Your task to perform on an android device: turn on the 12-hour format for clock Image 0: 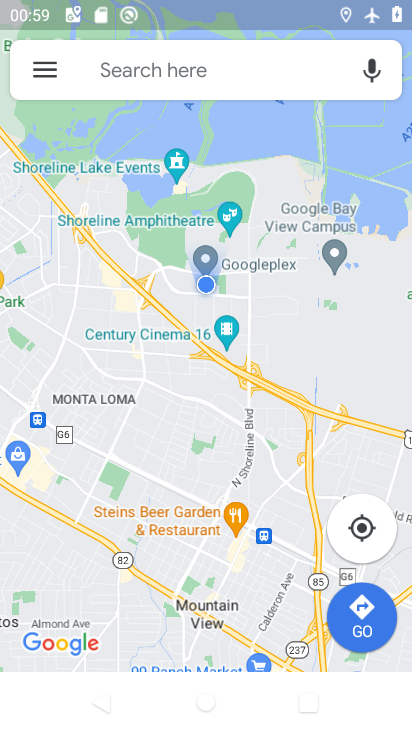
Step 0: press home button
Your task to perform on an android device: turn on the 12-hour format for clock Image 1: 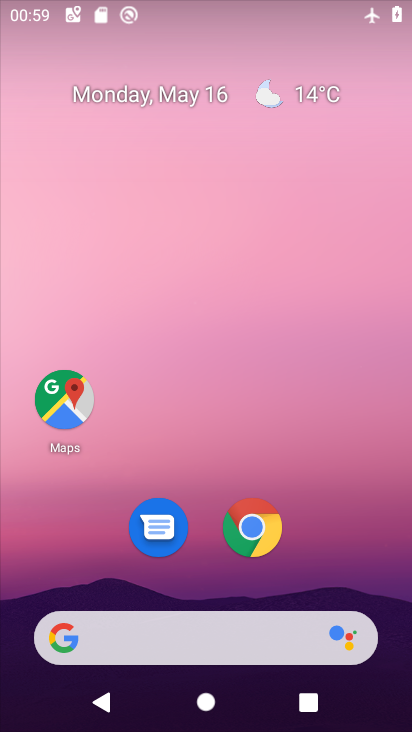
Step 1: drag from (266, 584) to (296, 9)
Your task to perform on an android device: turn on the 12-hour format for clock Image 2: 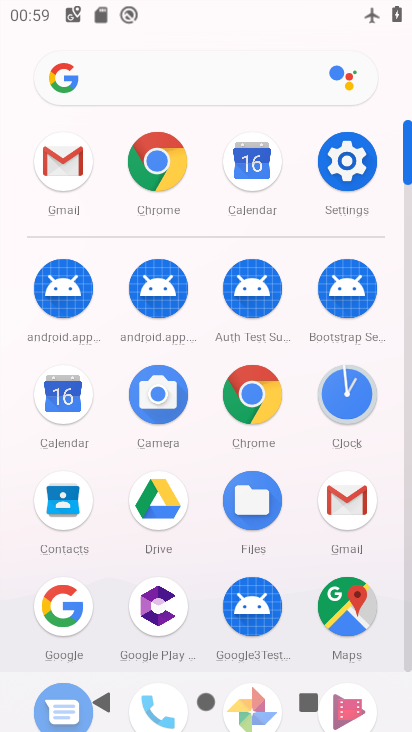
Step 2: drag from (210, 560) to (273, 168)
Your task to perform on an android device: turn on the 12-hour format for clock Image 3: 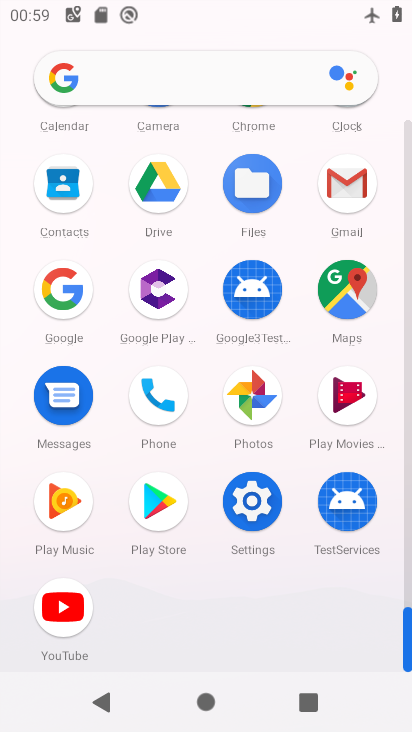
Step 3: click (249, 534)
Your task to perform on an android device: turn on the 12-hour format for clock Image 4: 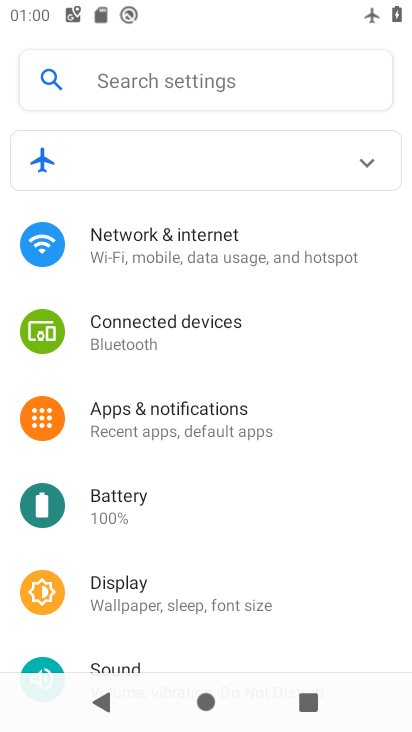
Step 4: drag from (201, 540) to (233, 198)
Your task to perform on an android device: turn on the 12-hour format for clock Image 5: 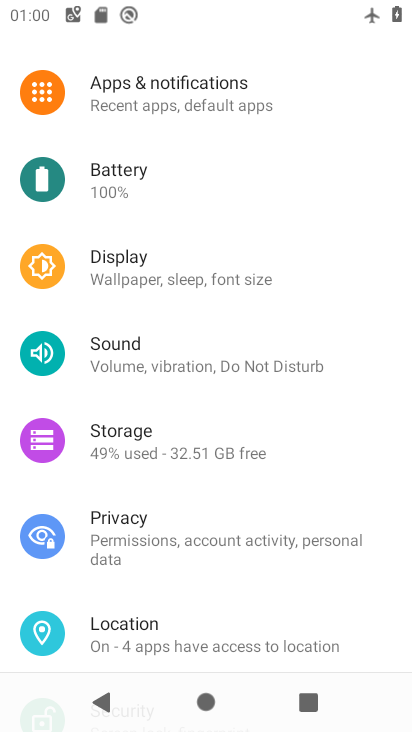
Step 5: drag from (180, 535) to (277, 100)
Your task to perform on an android device: turn on the 12-hour format for clock Image 6: 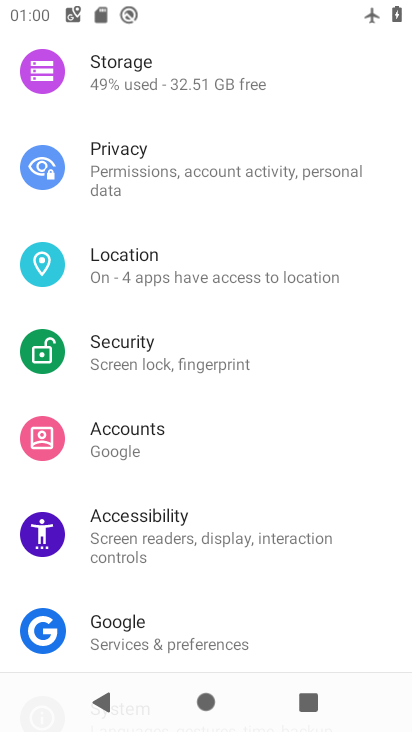
Step 6: drag from (163, 602) to (210, 333)
Your task to perform on an android device: turn on the 12-hour format for clock Image 7: 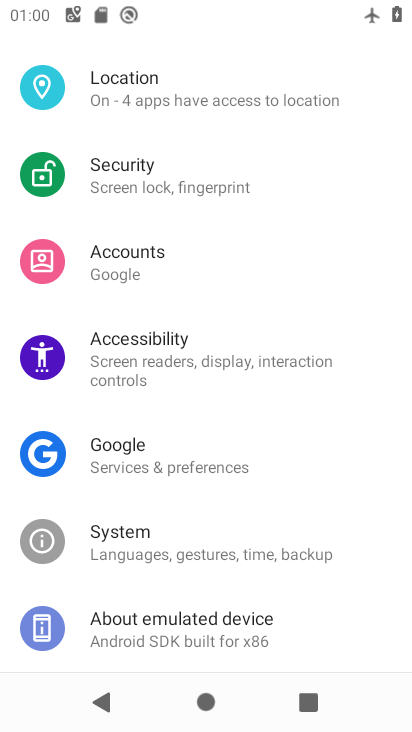
Step 7: click (182, 560)
Your task to perform on an android device: turn on the 12-hour format for clock Image 8: 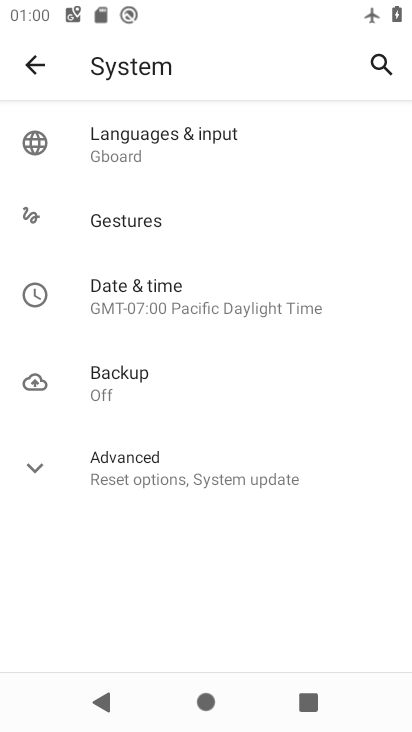
Step 8: click (126, 302)
Your task to perform on an android device: turn on the 12-hour format for clock Image 9: 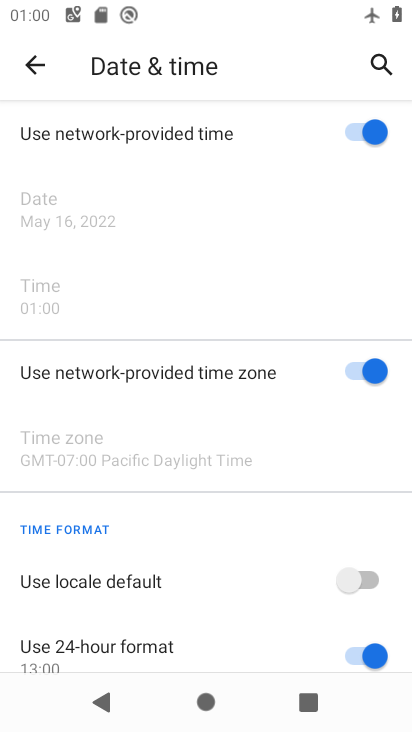
Step 9: click (372, 577)
Your task to perform on an android device: turn on the 12-hour format for clock Image 10: 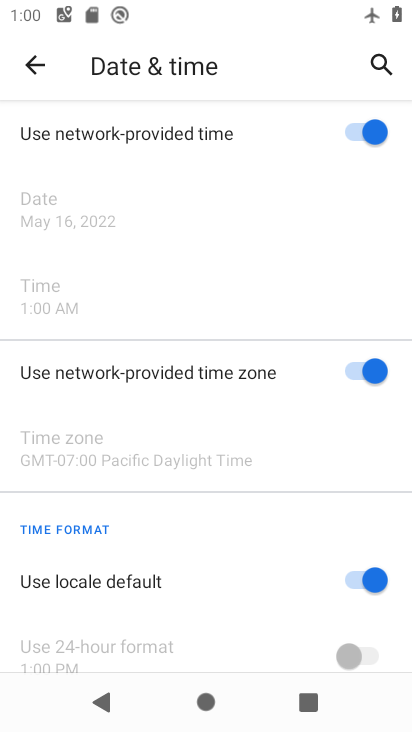
Step 10: task complete